Your task to perform on an android device: Show me popular games on the Play Store Image 0: 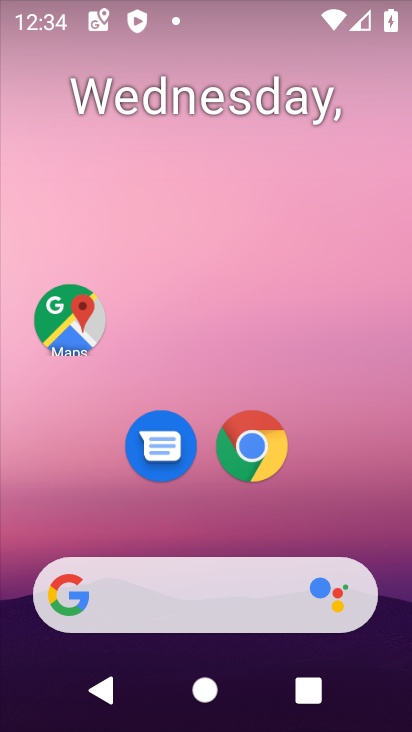
Step 0: drag from (389, 634) to (267, 132)
Your task to perform on an android device: Show me popular games on the Play Store Image 1: 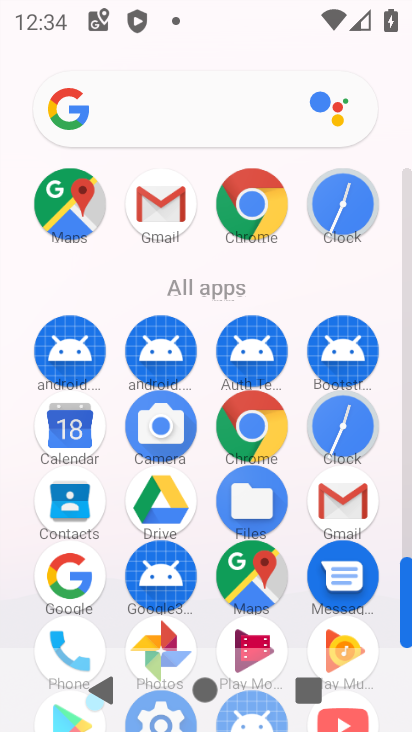
Step 1: drag from (212, 559) to (206, 184)
Your task to perform on an android device: Show me popular games on the Play Store Image 2: 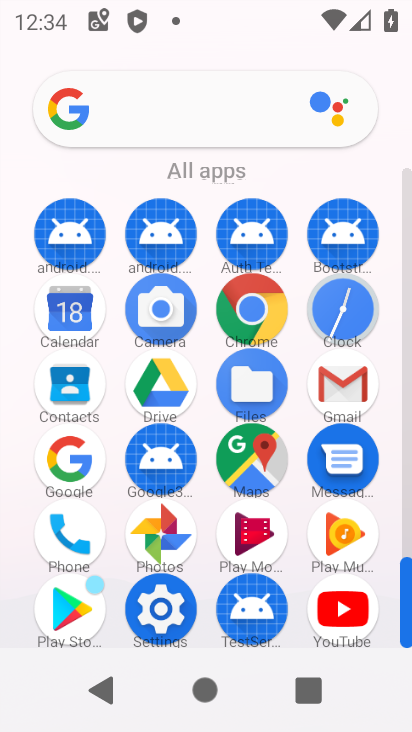
Step 2: click (75, 605)
Your task to perform on an android device: Show me popular games on the Play Store Image 3: 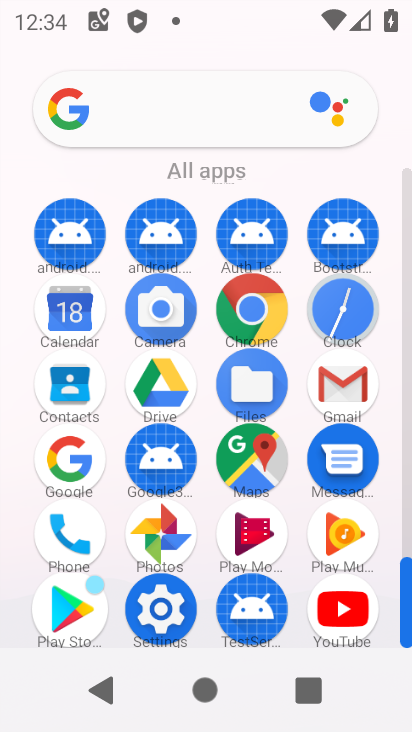
Step 3: click (71, 607)
Your task to perform on an android device: Show me popular games on the Play Store Image 4: 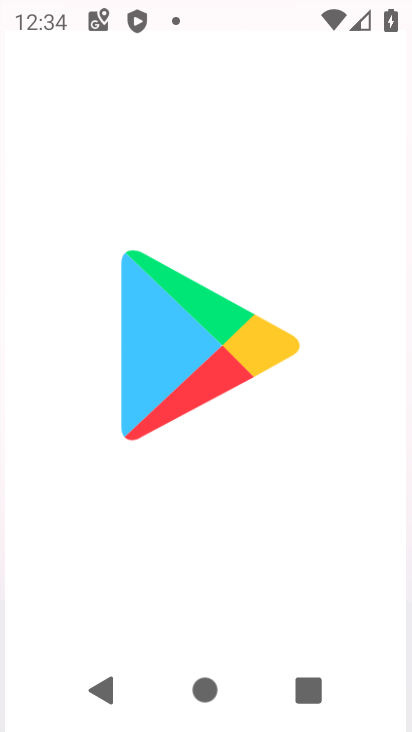
Step 4: click (72, 597)
Your task to perform on an android device: Show me popular games on the Play Store Image 5: 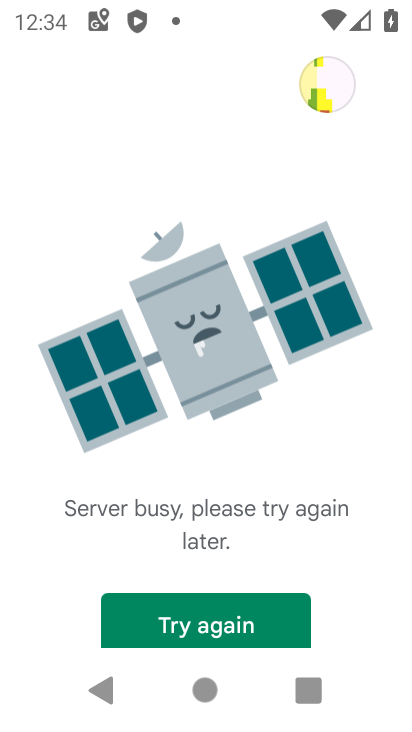
Step 5: task complete